Your task to perform on an android device: Search for vegetarian restaurants on Maps Image 0: 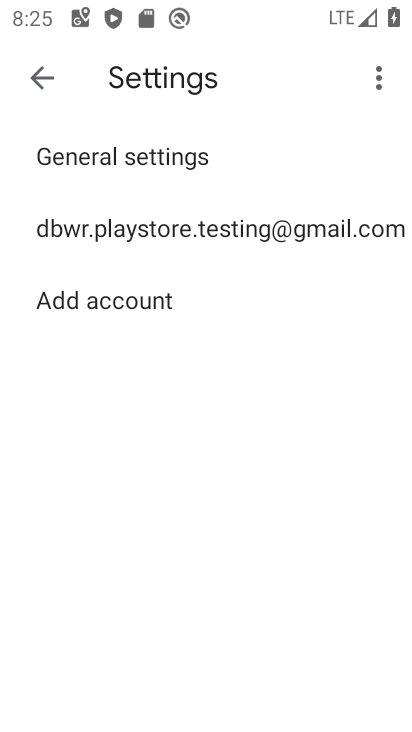
Step 0: press home button
Your task to perform on an android device: Search for vegetarian restaurants on Maps Image 1: 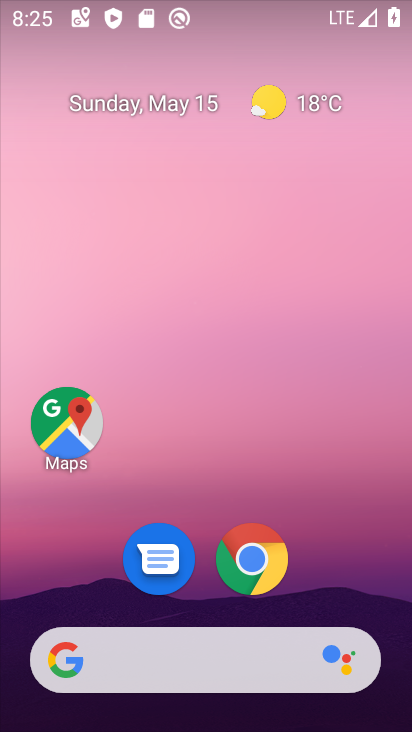
Step 1: click (69, 419)
Your task to perform on an android device: Search for vegetarian restaurants on Maps Image 2: 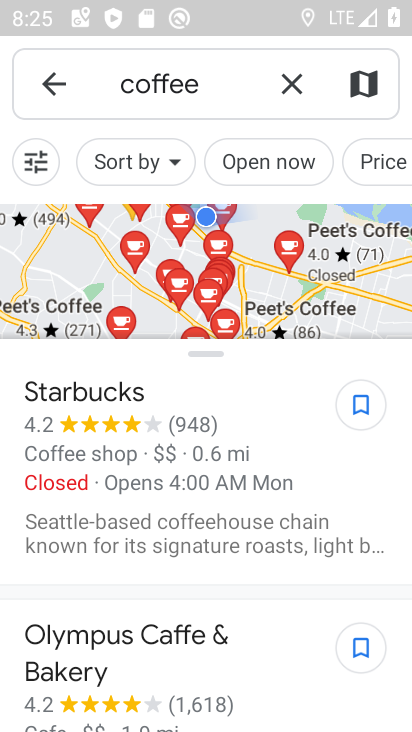
Step 2: click (291, 78)
Your task to perform on an android device: Search for vegetarian restaurants on Maps Image 3: 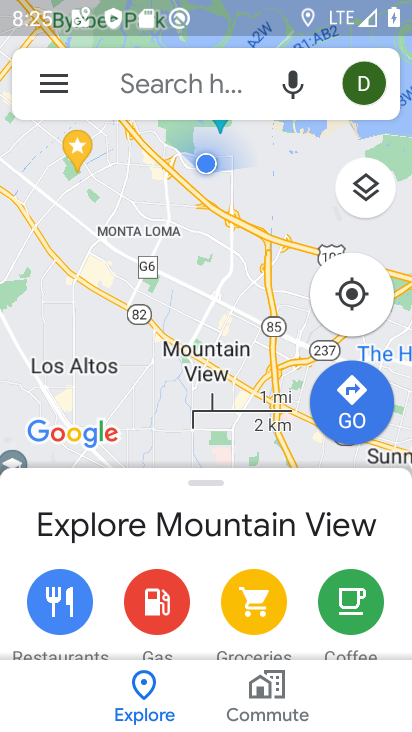
Step 3: click (194, 81)
Your task to perform on an android device: Search for vegetarian restaurants on Maps Image 4: 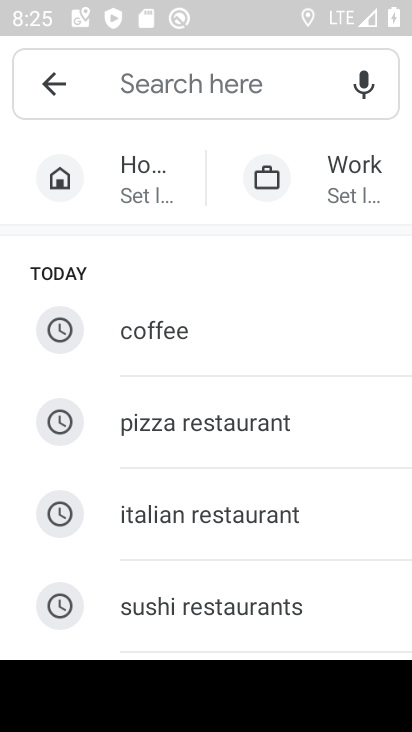
Step 4: type "vegetarian"
Your task to perform on an android device: Search for vegetarian restaurants on Maps Image 5: 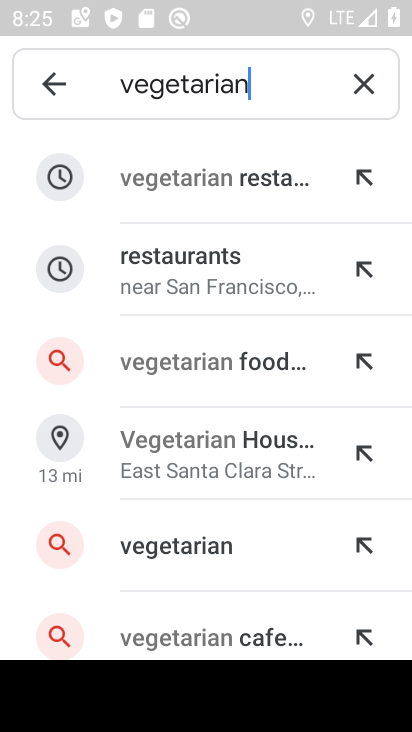
Step 5: click (241, 178)
Your task to perform on an android device: Search for vegetarian restaurants on Maps Image 6: 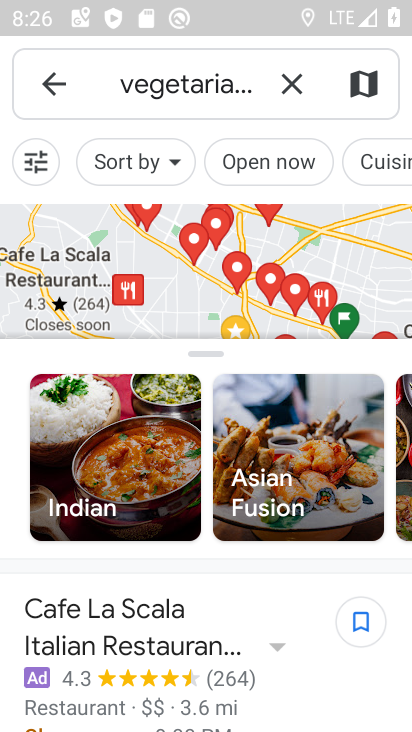
Step 6: task complete